Your task to perform on an android device: turn off priority inbox in the gmail app Image 0: 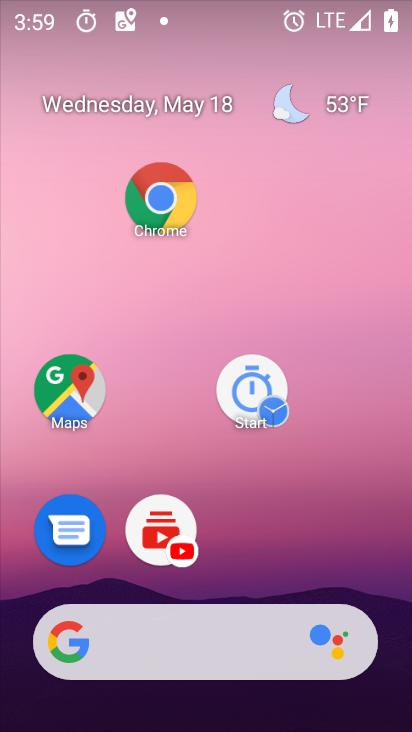
Step 0: drag from (313, 657) to (244, 180)
Your task to perform on an android device: turn off priority inbox in the gmail app Image 1: 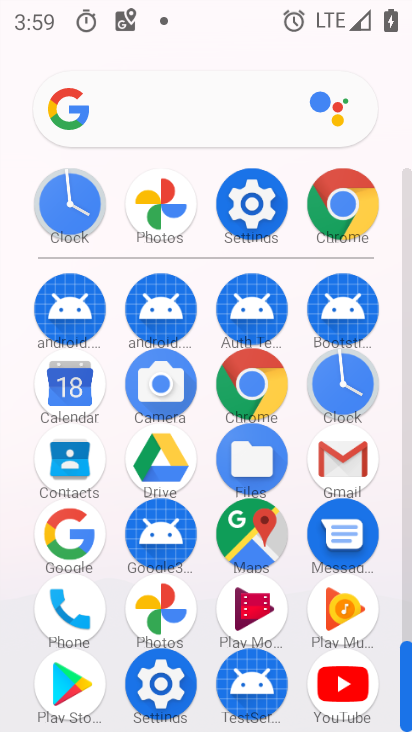
Step 1: click (339, 452)
Your task to perform on an android device: turn off priority inbox in the gmail app Image 2: 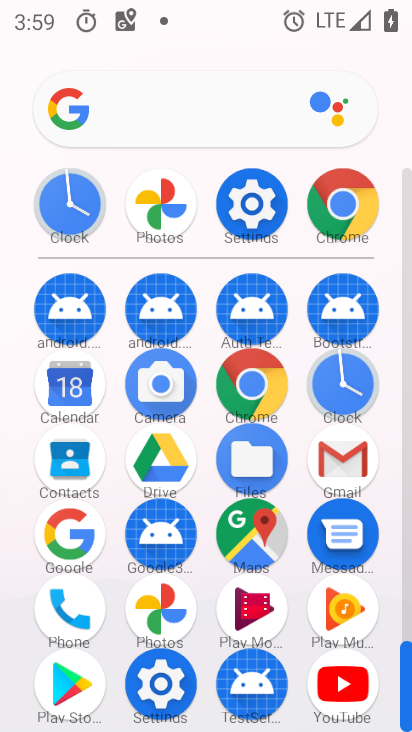
Step 2: click (339, 452)
Your task to perform on an android device: turn off priority inbox in the gmail app Image 3: 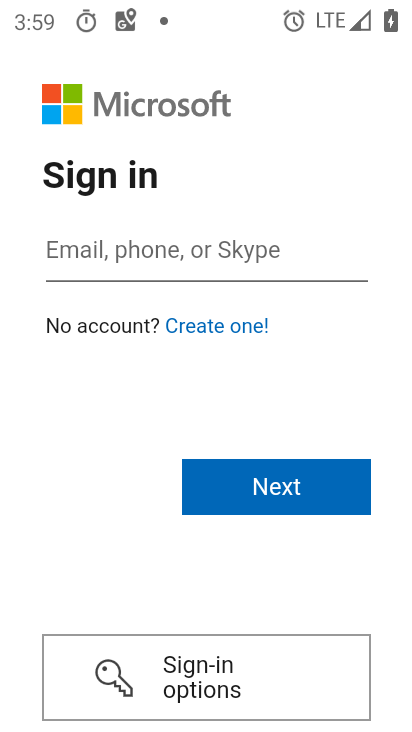
Step 3: press back button
Your task to perform on an android device: turn off priority inbox in the gmail app Image 4: 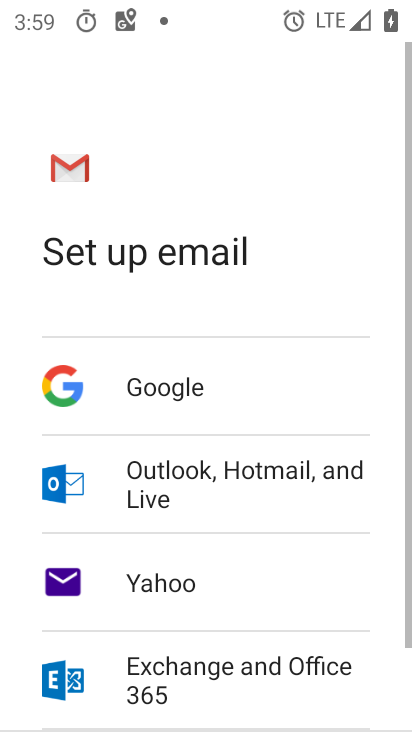
Step 4: press home button
Your task to perform on an android device: turn off priority inbox in the gmail app Image 5: 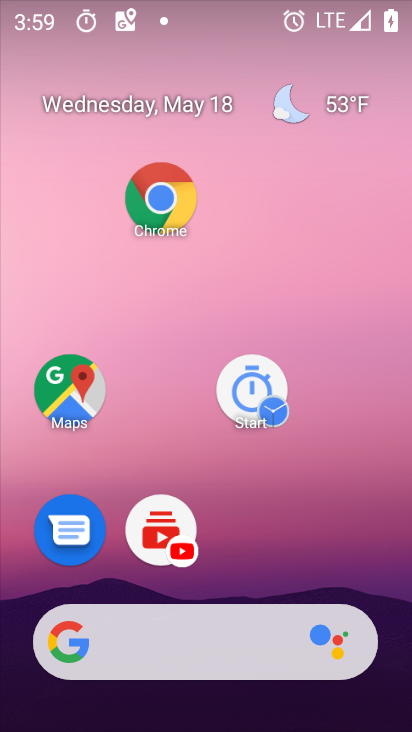
Step 5: drag from (250, 667) to (184, 235)
Your task to perform on an android device: turn off priority inbox in the gmail app Image 6: 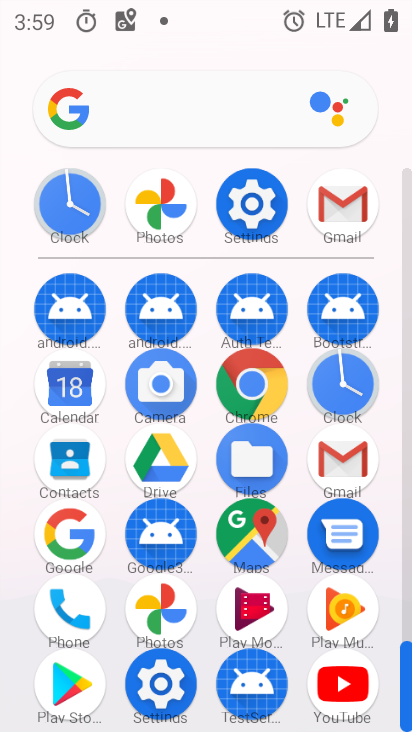
Step 6: click (348, 447)
Your task to perform on an android device: turn off priority inbox in the gmail app Image 7: 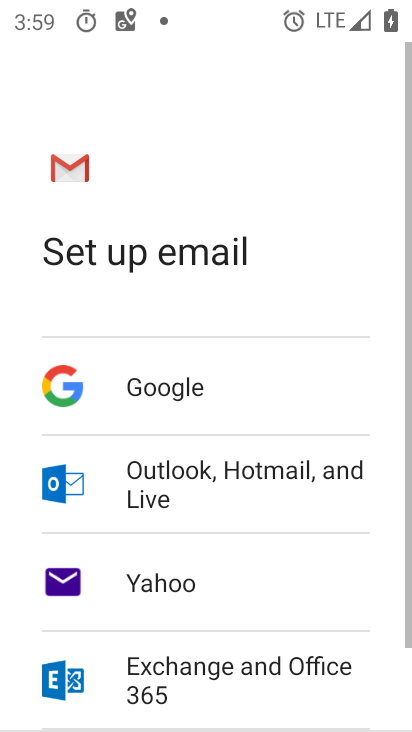
Step 7: press back button
Your task to perform on an android device: turn off priority inbox in the gmail app Image 8: 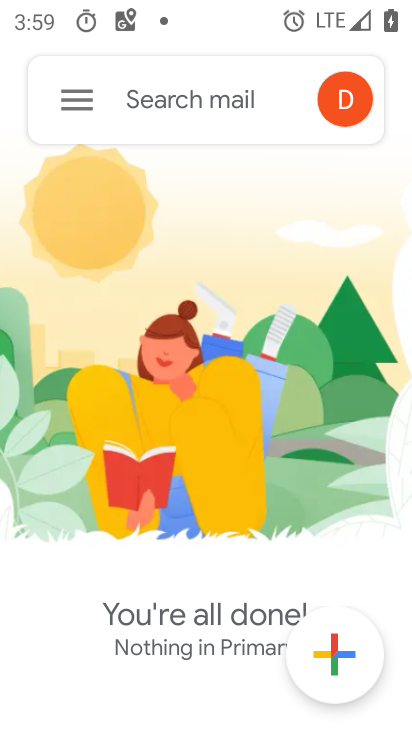
Step 8: click (77, 95)
Your task to perform on an android device: turn off priority inbox in the gmail app Image 9: 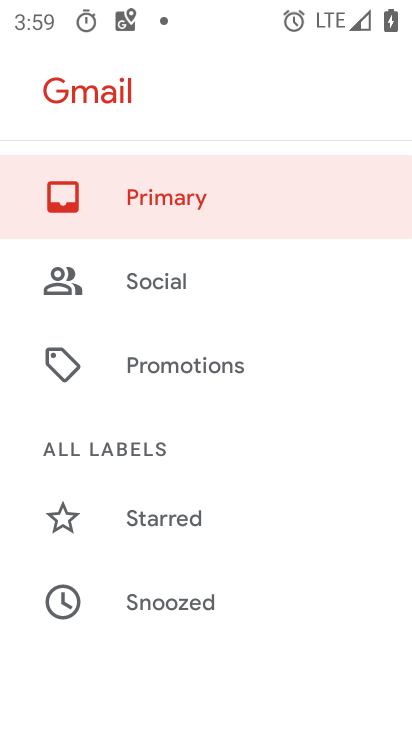
Step 9: drag from (214, 578) to (167, 165)
Your task to perform on an android device: turn off priority inbox in the gmail app Image 10: 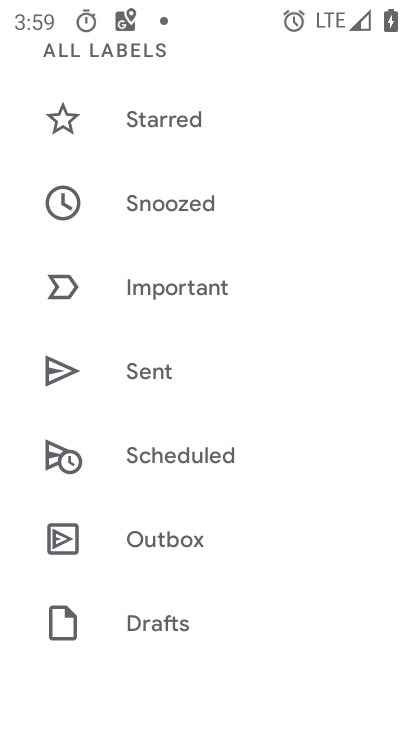
Step 10: drag from (205, 573) to (189, 72)
Your task to perform on an android device: turn off priority inbox in the gmail app Image 11: 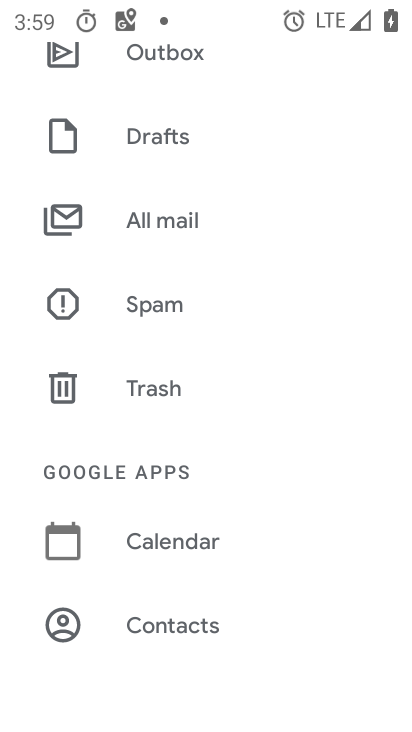
Step 11: drag from (163, 425) to (130, 37)
Your task to perform on an android device: turn off priority inbox in the gmail app Image 12: 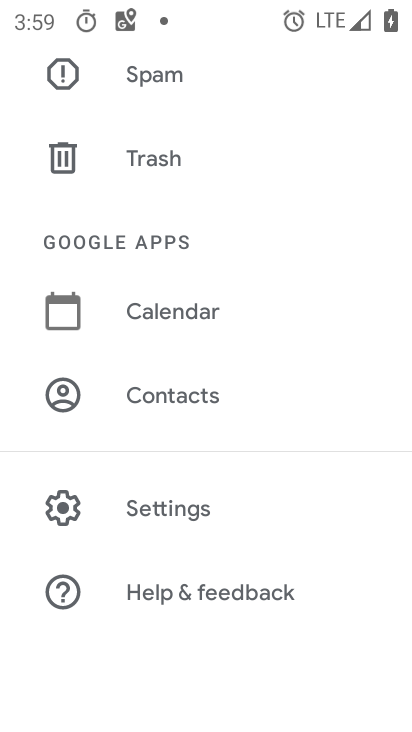
Step 12: click (146, 507)
Your task to perform on an android device: turn off priority inbox in the gmail app Image 13: 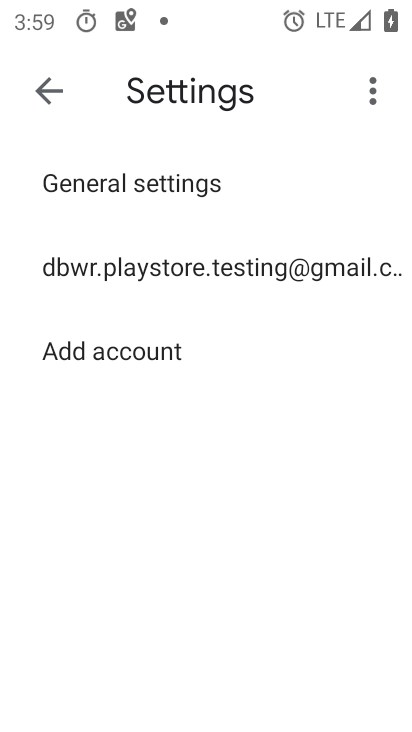
Step 13: click (200, 254)
Your task to perform on an android device: turn off priority inbox in the gmail app Image 14: 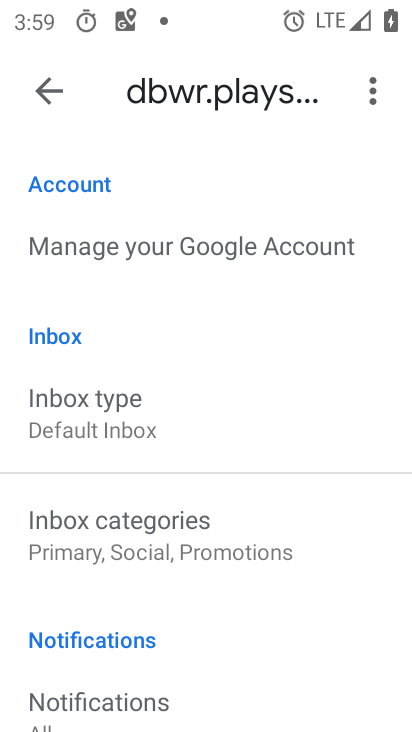
Step 14: drag from (124, 565) to (73, 259)
Your task to perform on an android device: turn off priority inbox in the gmail app Image 15: 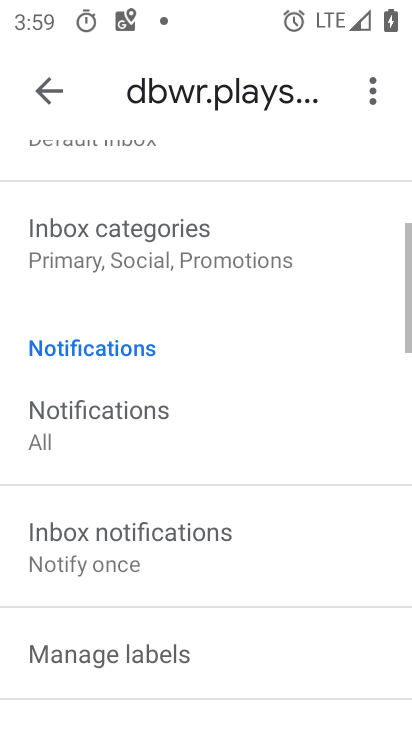
Step 15: drag from (181, 500) to (142, 195)
Your task to perform on an android device: turn off priority inbox in the gmail app Image 16: 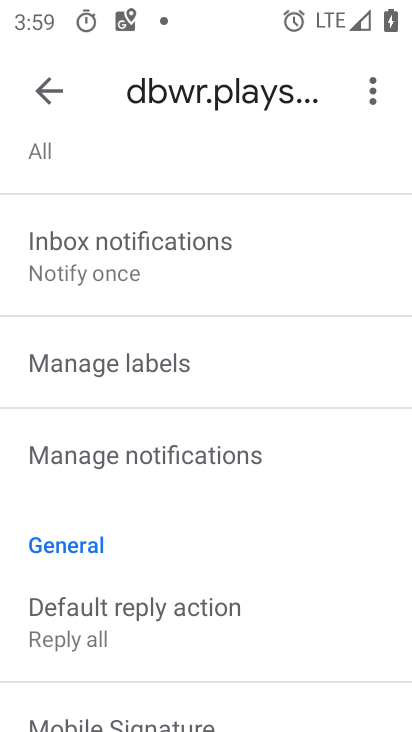
Step 16: drag from (76, 197) to (152, 514)
Your task to perform on an android device: turn off priority inbox in the gmail app Image 17: 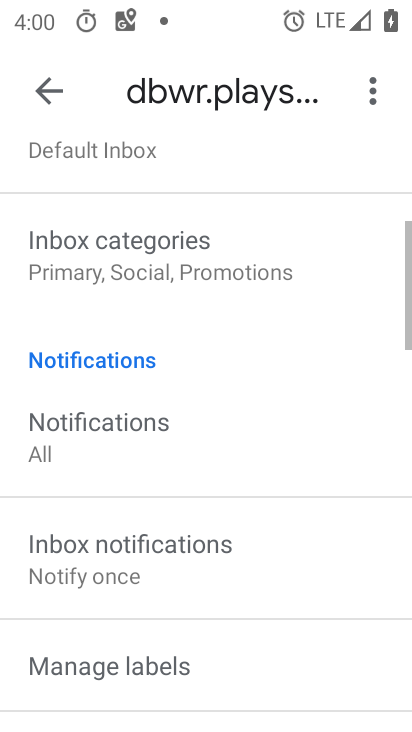
Step 17: drag from (108, 278) to (150, 532)
Your task to perform on an android device: turn off priority inbox in the gmail app Image 18: 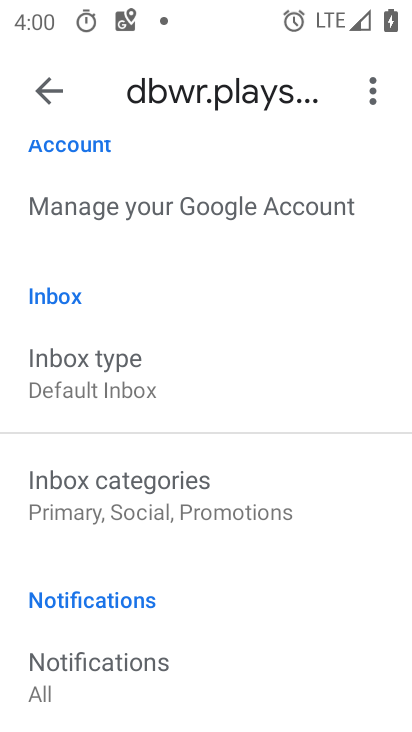
Step 18: click (81, 644)
Your task to perform on an android device: turn off priority inbox in the gmail app Image 19: 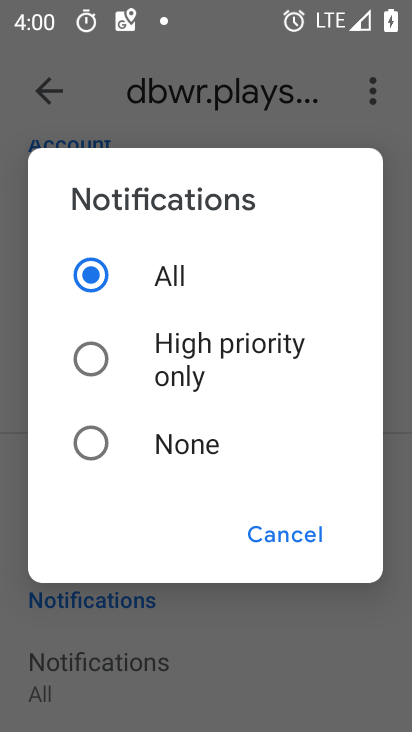
Step 19: click (290, 526)
Your task to perform on an android device: turn off priority inbox in the gmail app Image 20: 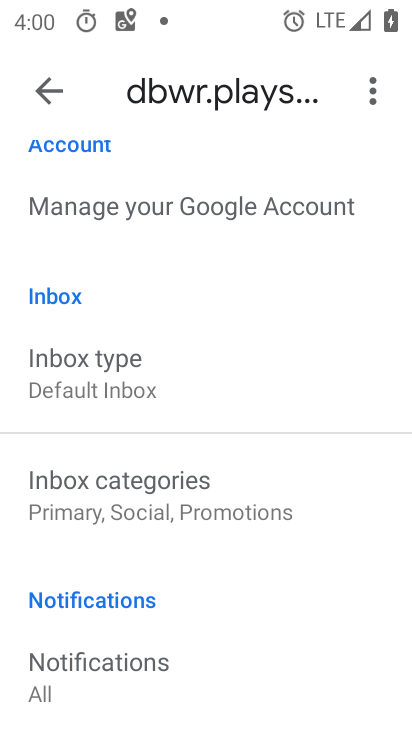
Step 20: click (96, 379)
Your task to perform on an android device: turn off priority inbox in the gmail app Image 21: 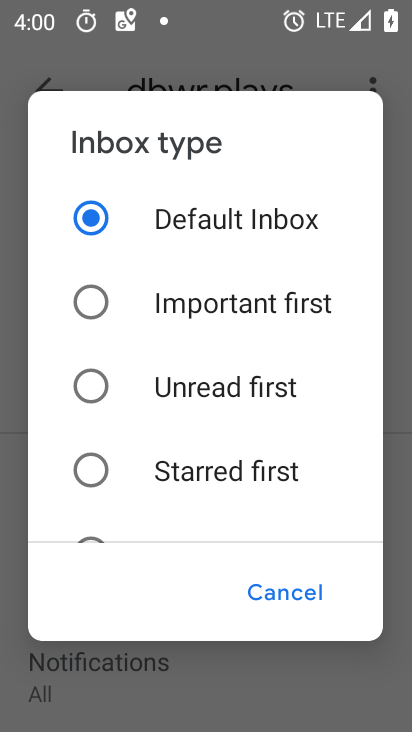
Step 21: drag from (205, 480) to (167, 211)
Your task to perform on an android device: turn off priority inbox in the gmail app Image 22: 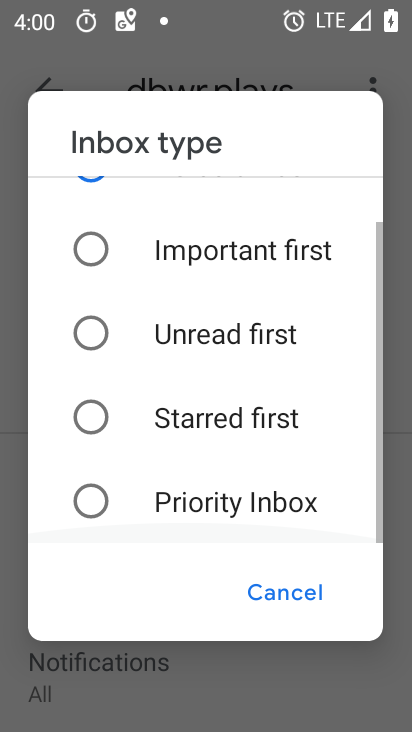
Step 22: drag from (188, 285) to (199, 65)
Your task to perform on an android device: turn off priority inbox in the gmail app Image 23: 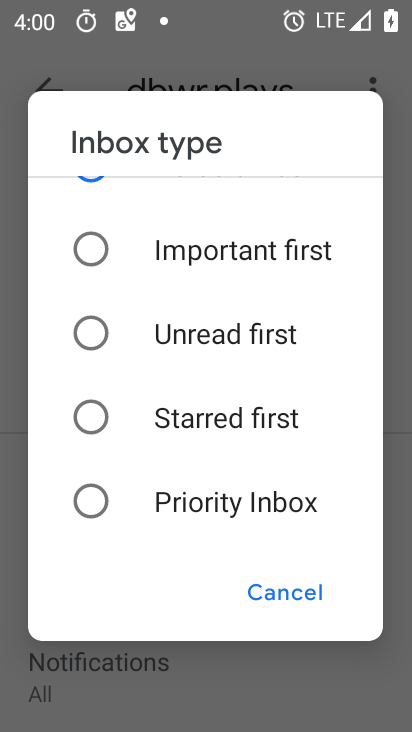
Step 23: click (90, 502)
Your task to perform on an android device: turn off priority inbox in the gmail app Image 24: 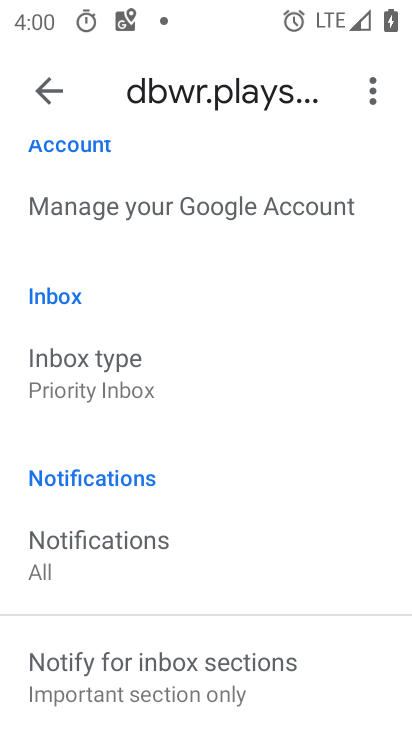
Step 24: task complete